Your task to perform on an android device: Search for "duracell triple a" on newegg.com, select the first entry, add it to the cart, then select checkout. Image 0: 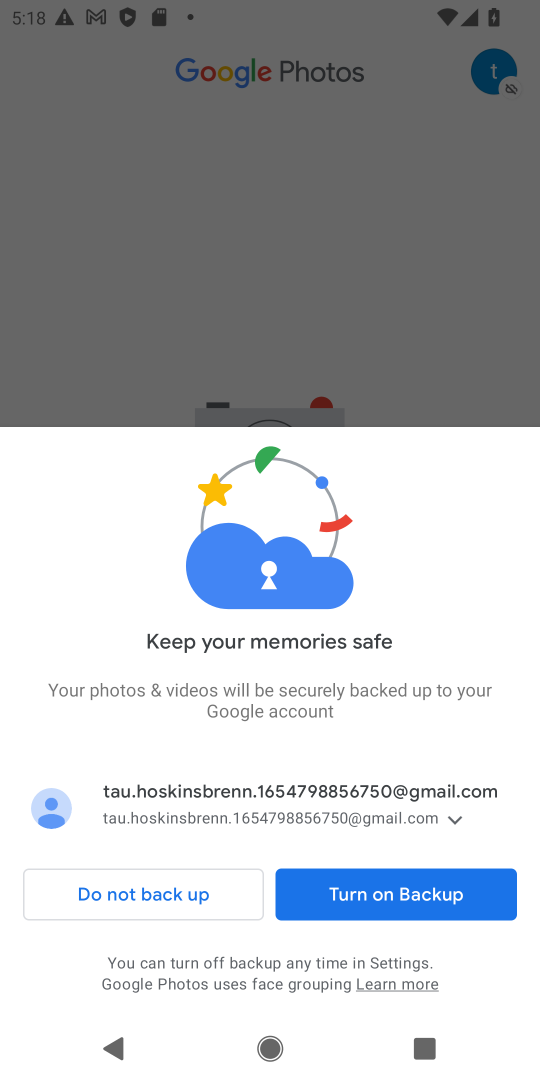
Step 0: press home button
Your task to perform on an android device: Search for "duracell triple a" on newegg.com, select the first entry, add it to the cart, then select checkout. Image 1: 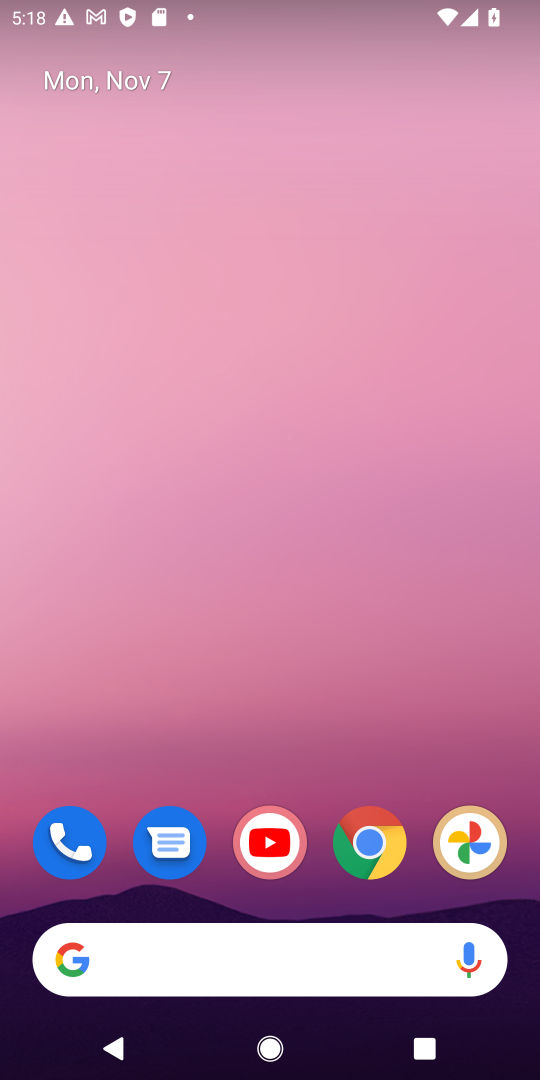
Step 1: drag from (252, 881) to (55, 75)
Your task to perform on an android device: Search for "duracell triple a" on newegg.com, select the first entry, add it to the cart, then select checkout. Image 2: 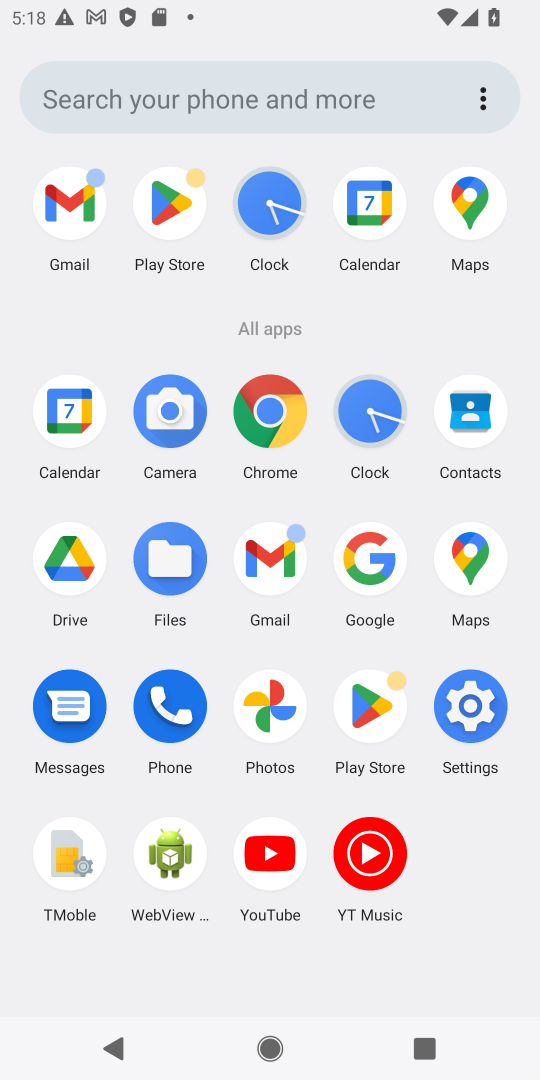
Step 2: click (292, 423)
Your task to perform on an android device: Search for "duracell triple a" on newegg.com, select the first entry, add it to the cart, then select checkout. Image 3: 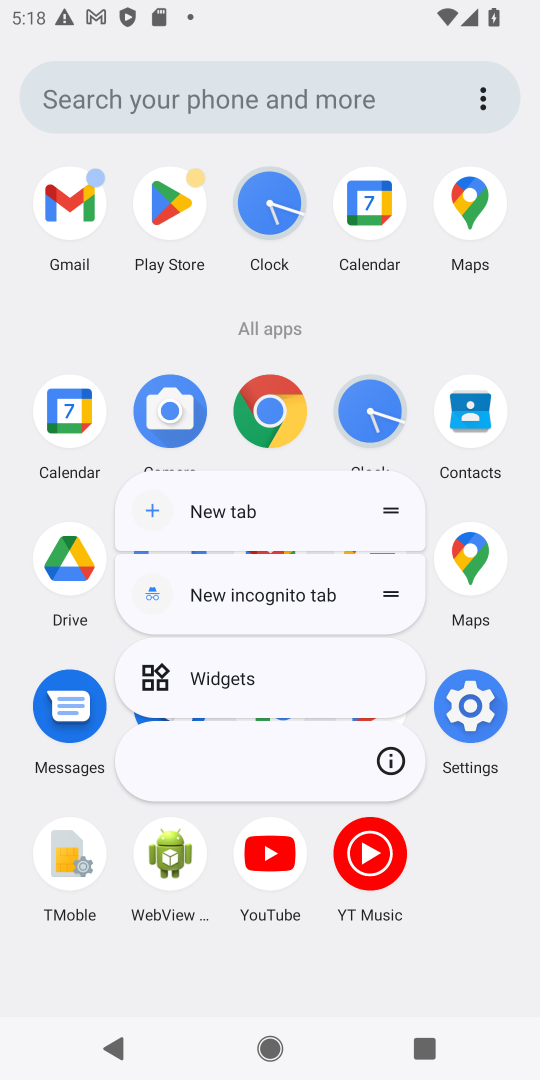
Step 3: click (282, 418)
Your task to perform on an android device: Search for "duracell triple a" on newegg.com, select the first entry, add it to the cart, then select checkout. Image 4: 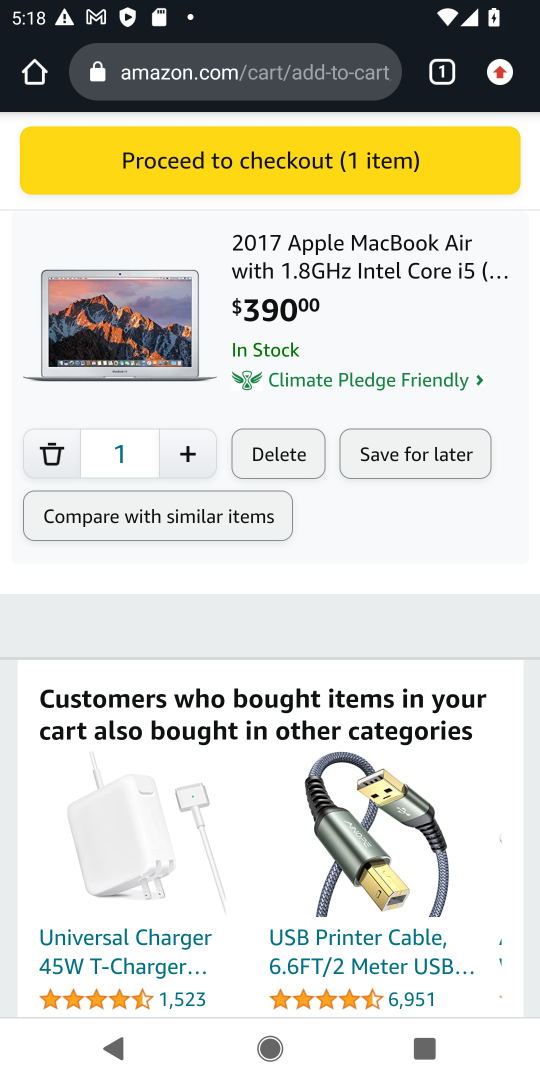
Step 4: click (168, 82)
Your task to perform on an android device: Search for "duracell triple a" on newegg.com, select the first entry, add it to the cart, then select checkout. Image 5: 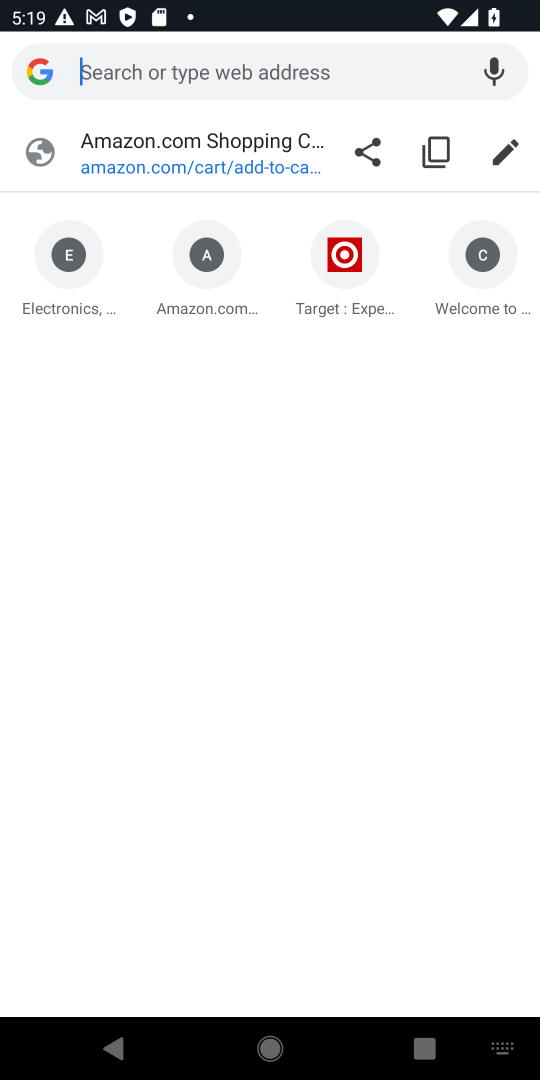
Step 5: type "newegg.com"
Your task to perform on an android device: Search for "duracell triple a" on newegg.com, select the first entry, add it to the cart, then select checkout. Image 6: 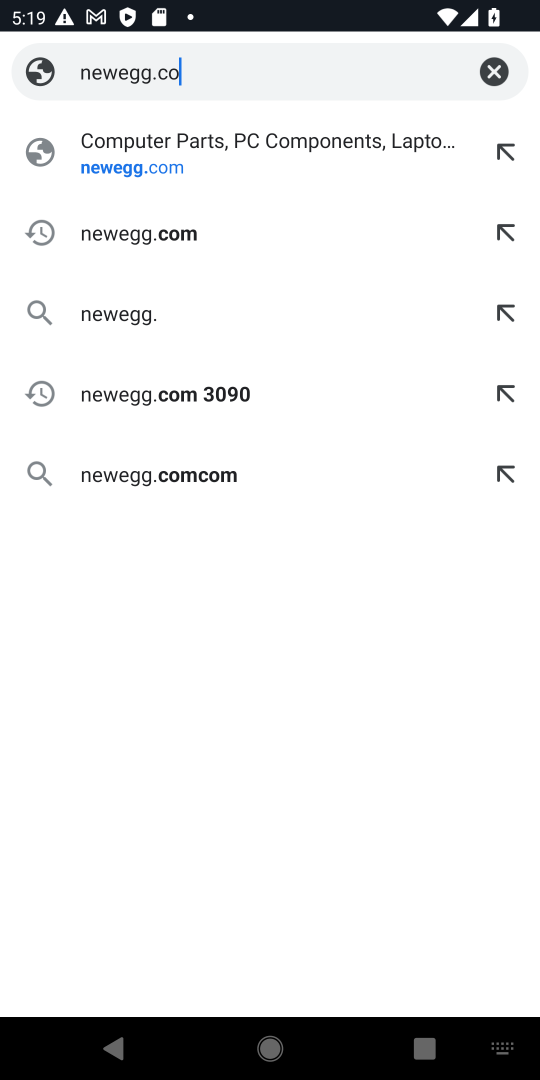
Step 6: press enter
Your task to perform on an android device: Search for "duracell triple a" on newegg.com, select the first entry, add it to the cart, then select checkout. Image 7: 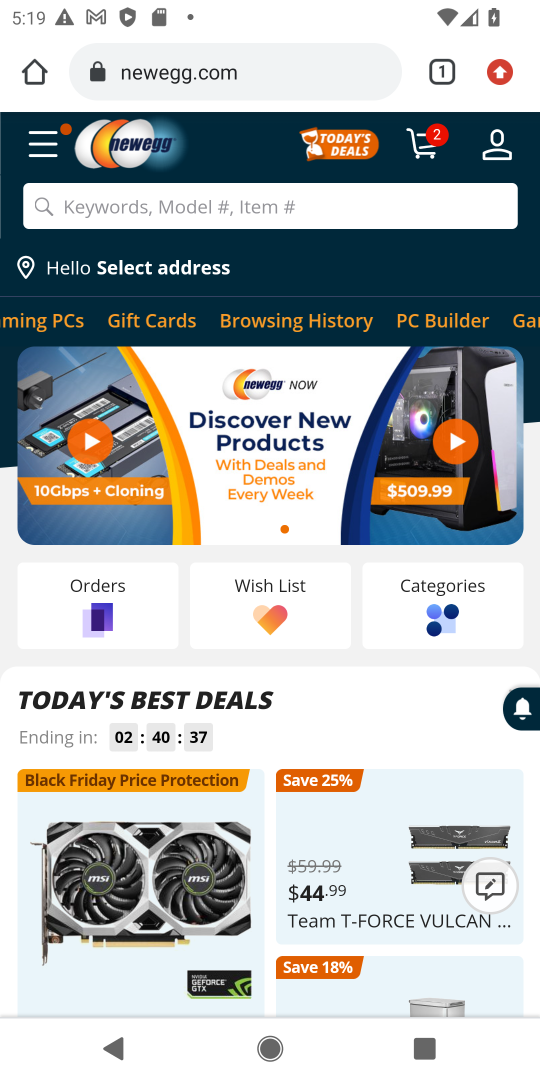
Step 7: click (135, 196)
Your task to perform on an android device: Search for "duracell triple a" on newegg.com, select the first entry, add it to the cart, then select checkout. Image 8: 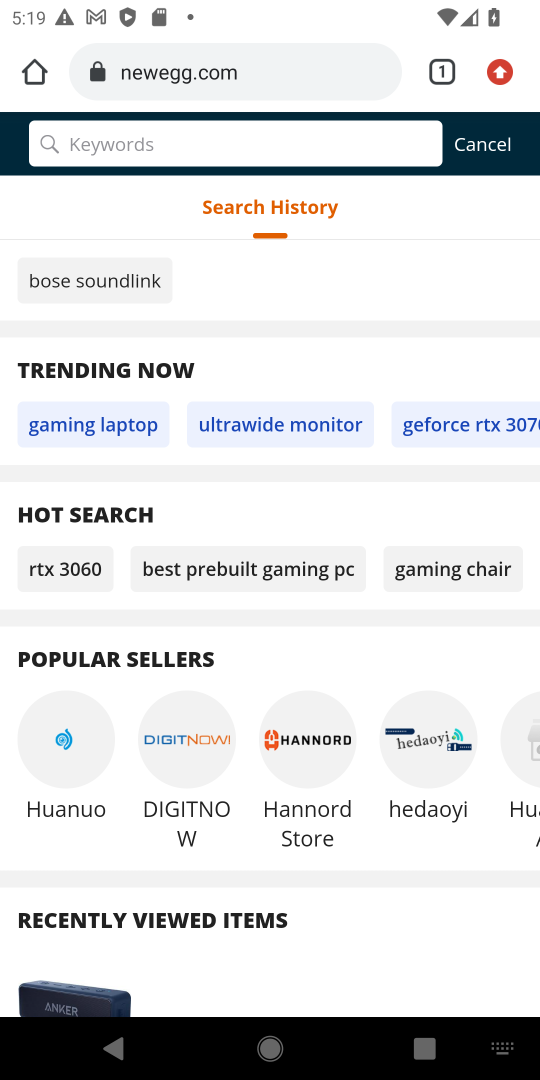
Step 8: type "duracell triple"
Your task to perform on an android device: Search for "duracell triple a" on newegg.com, select the first entry, add it to the cart, then select checkout. Image 9: 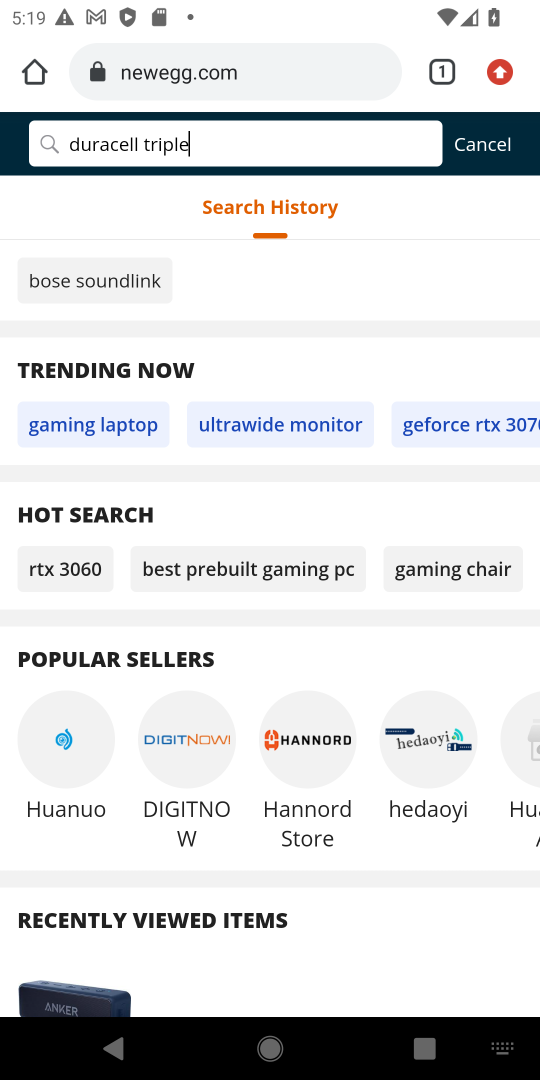
Step 9: press enter
Your task to perform on an android device: Search for "duracell triple a" on newegg.com, select the first entry, add it to the cart, then select checkout. Image 10: 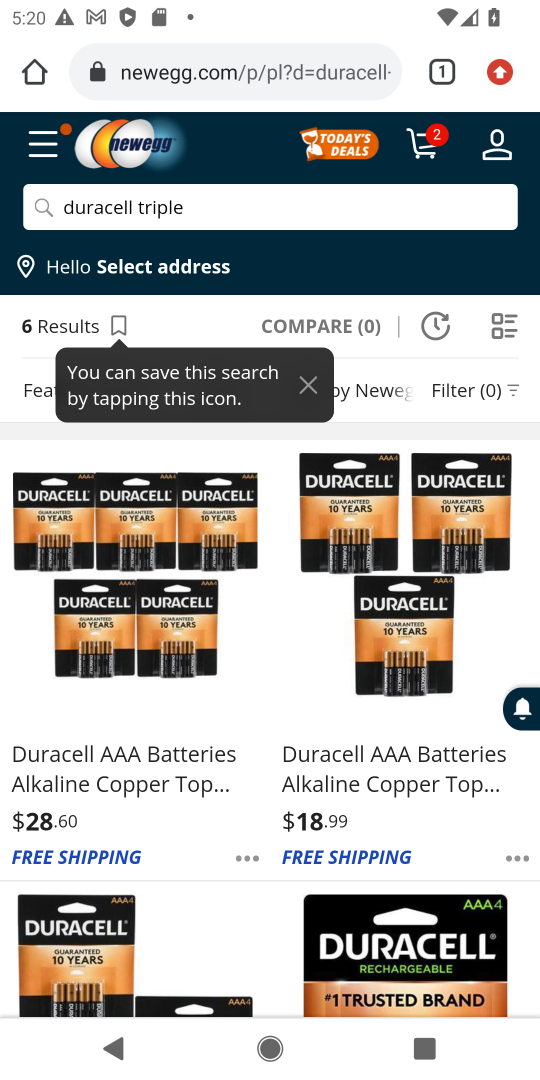
Step 10: click (83, 582)
Your task to perform on an android device: Search for "duracell triple a" on newegg.com, select the first entry, add it to the cart, then select checkout. Image 11: 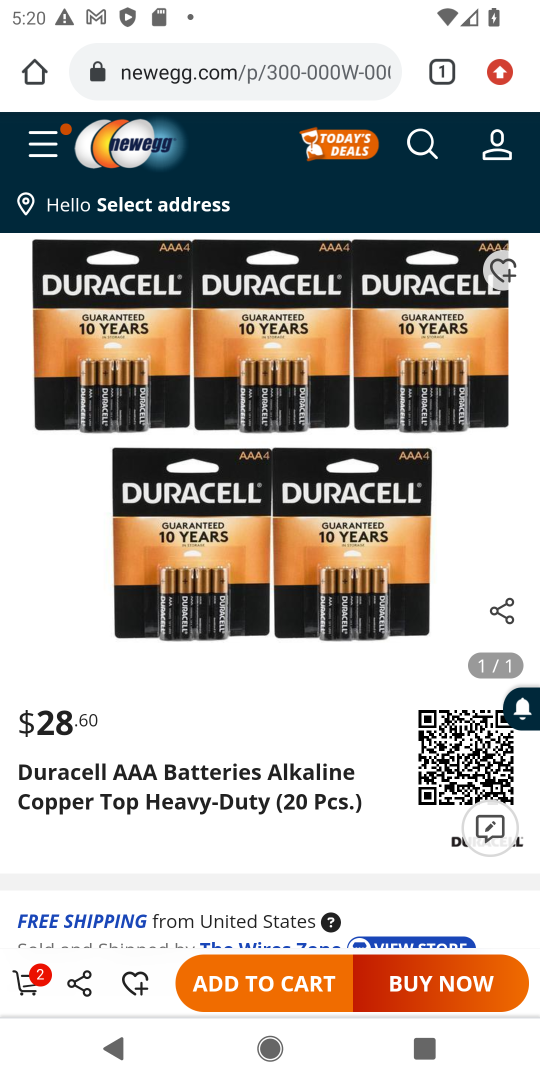
Step 11: click (274, 984)
Your task to perform on an android device: Search for "duracell triple a" on newegg.com, select the first entry, add it to the cart, then select checkout. Image 12: 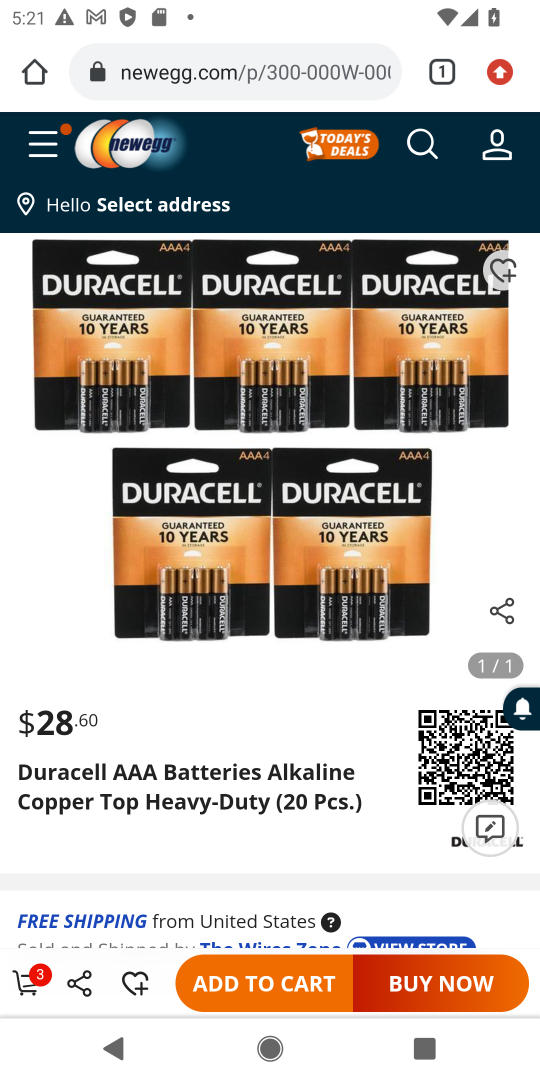
Step 12: click (274, 981)
Your task to perform on an android device: Search for "duracell triple a" on newegg.com, select the first entry, add it to the cart, then select checkout. Image 13: 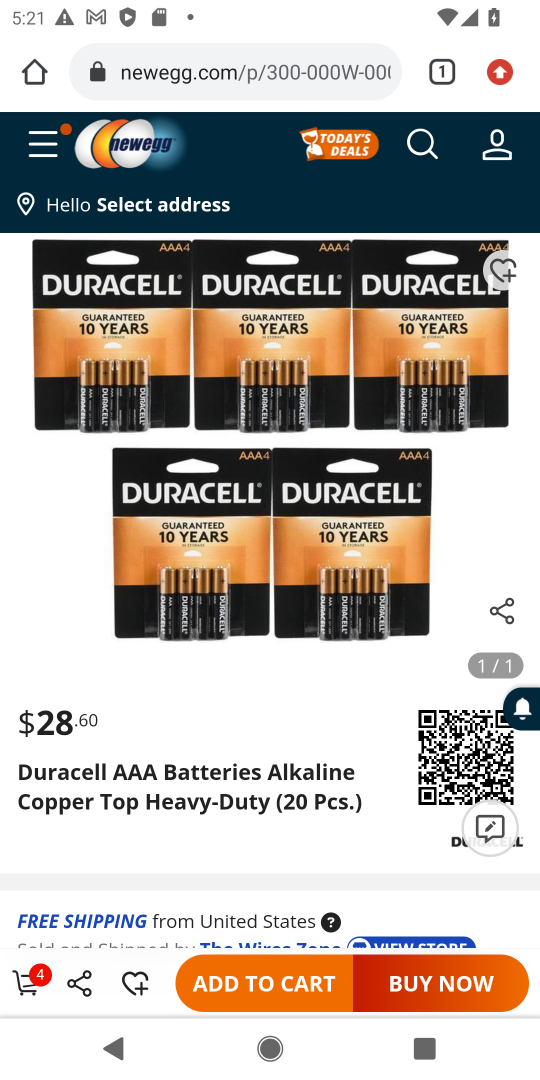
Step 13: drag from (342, 857) to (259, 335)
Your task to perform on an android device: Search for "duracell triple a" on newegg.com, select the first entry, add it to the cart, then select checkout. Image 14: 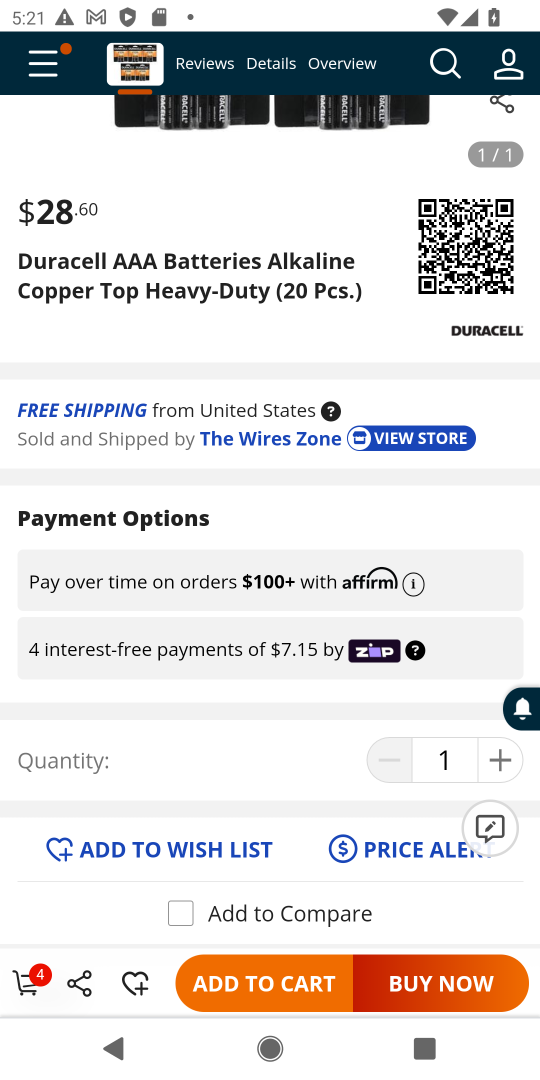
Step 14: drag from (315, 877) to (228, 487)
Your task to perform on an android device: Search for "duracell triple a" on newegg.com, select the first entry, add it to the cart, then select checkout. Image 15: 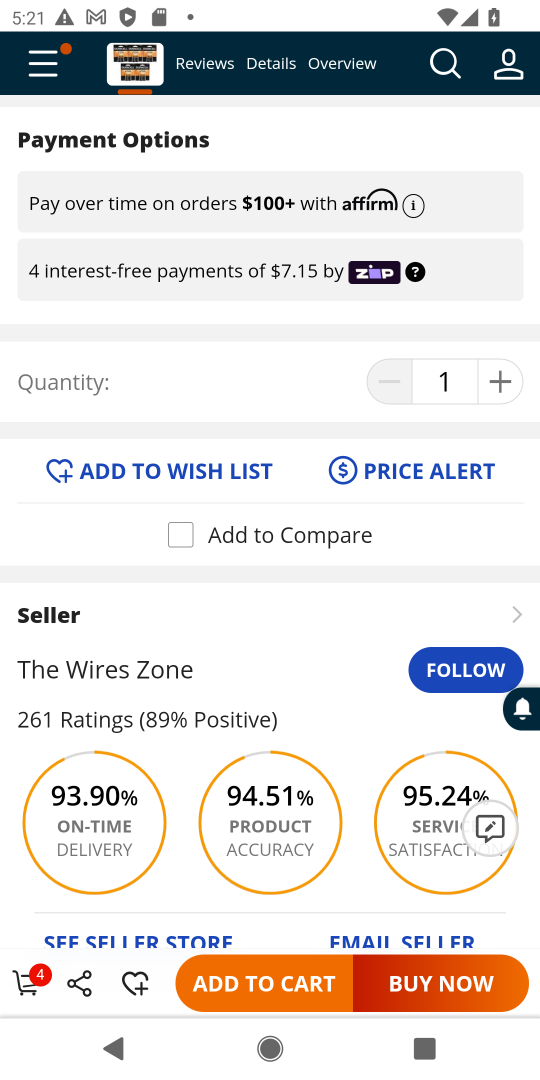
Step 15: drag from (357, 850) to (299, 323)
Your task to perform on an android device: Search for "duracell triple a" on newegg.com, select the first entry, add it to the cart, then select checkout. Image 16: 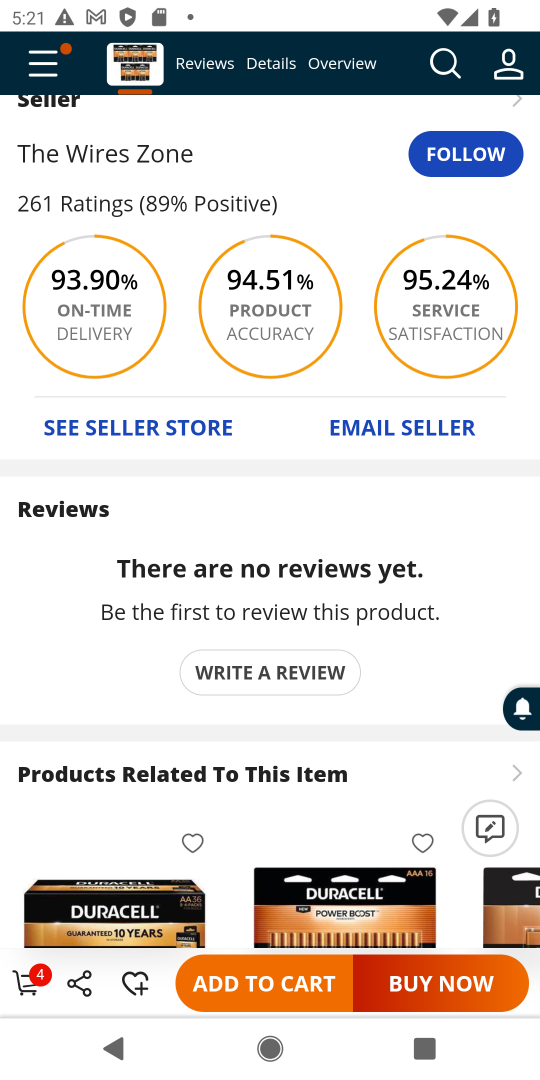
Step 16: drag from (338, 681) to (340, 277)
Your task to perform on an android device: Search for "duracell triple a" on newegg.com, select the first entry, add it to the cart, then select checkout. Image 17: 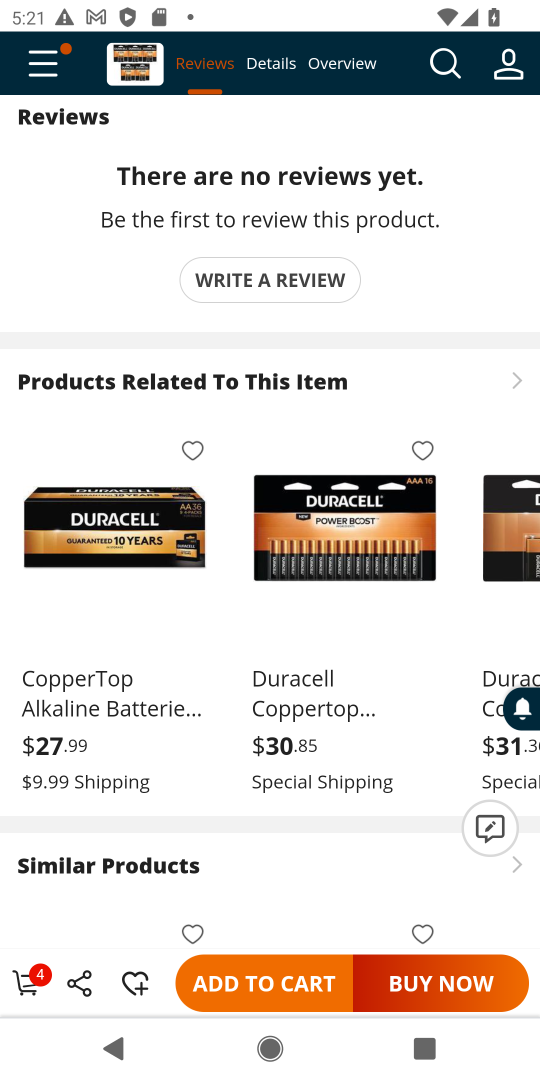
Step 17: drag from (395, 785) to (362, 311)
Your task to perform on an android device: Search for "duracell triple a" on newegg.com, select the first entry, add it to the cart, then select checkout. Image 18: 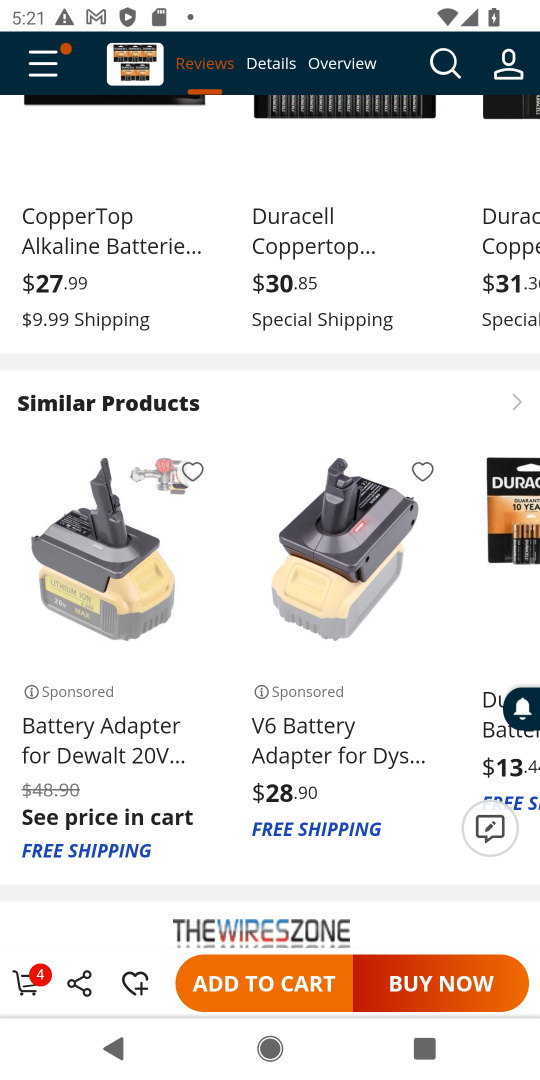
Step 18: drag from (373, 839) to (347, 335)
Your task to perform on an android device: Search for "duracell triple a" on newegg.com, select the first entry, add it to the cart, then select checkout. Image 19: 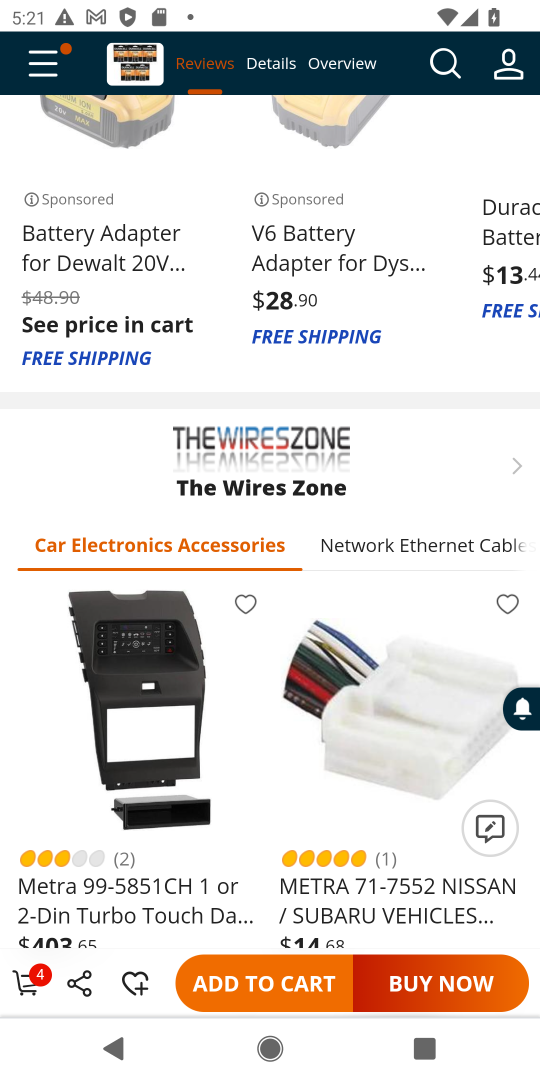
Step 19: drag from (415, 838) to (441, 334)
Your task to perform on an android device: Search for "duracell triple a" on newegg.com, select the first entry, add it to the cart, then select checkout. Image 20: 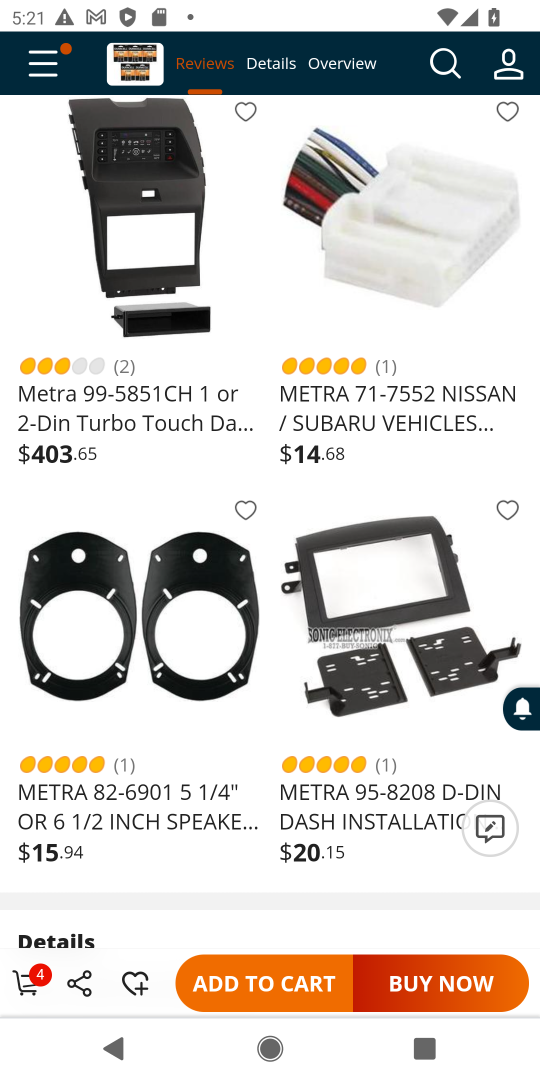
Step 20: drag from (354, 544) to (392, 894)
Your task to perform on an android device: Search for "duracell triple a" on newegg.com, select the first entry, add it to the cart, then select checkout. Image 21: 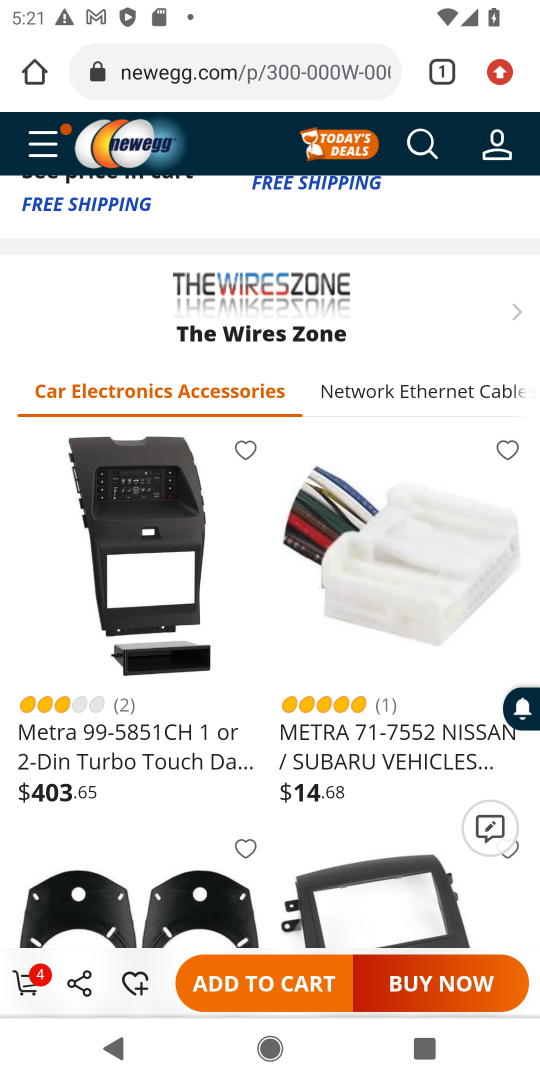
Step 21: drag from (322, 526) to (367, 887)
Your task to perform on an android device: Search for "duracell triple a" on newegg.com, select the first entry, add it to the cart, then select checkout. Image 22: 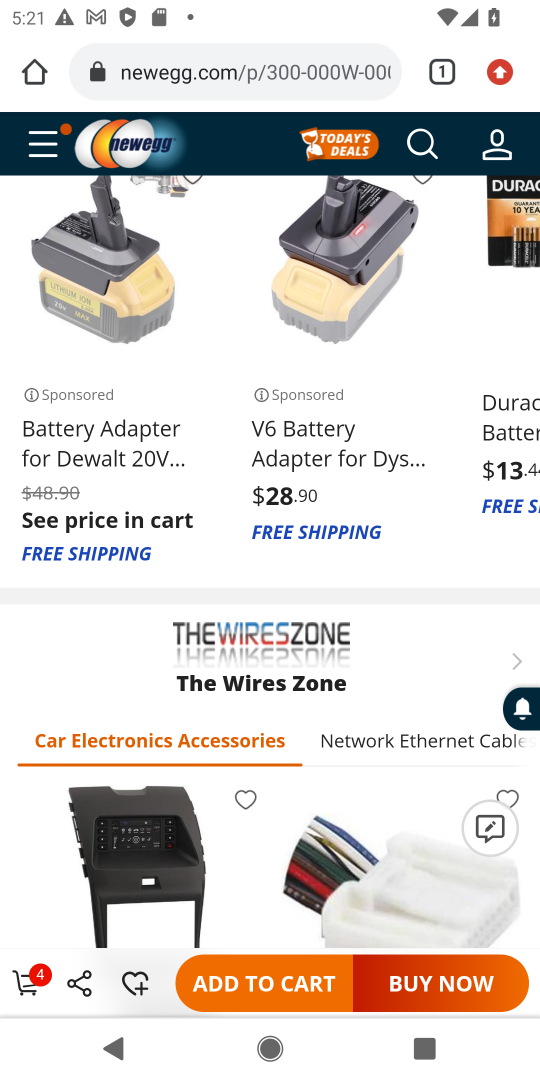
Step 22: drag from (340, 388) to (432, 958)
Your task to perform on an android device: Search for "duracell triple a" on newegg.com, select the first entry, add it to the cart, then select checkout. Image 23: 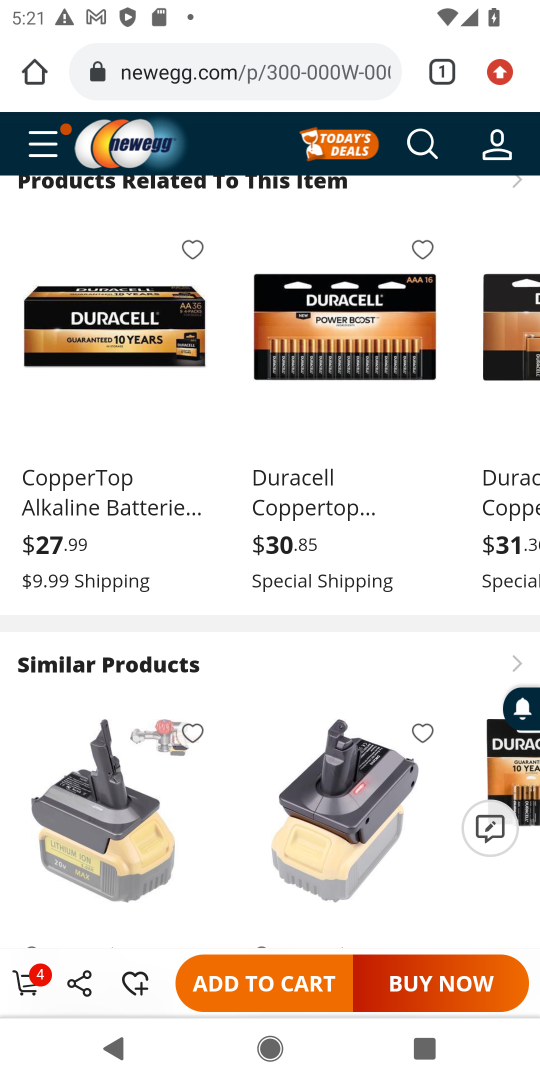
Step 23: drag from (289, 375) to (371, 938)
Your task to perform on an android device: Search for "duracell triple a" on newegg.com, select the first entry, add it to the cart, then select checkout. Image 24: 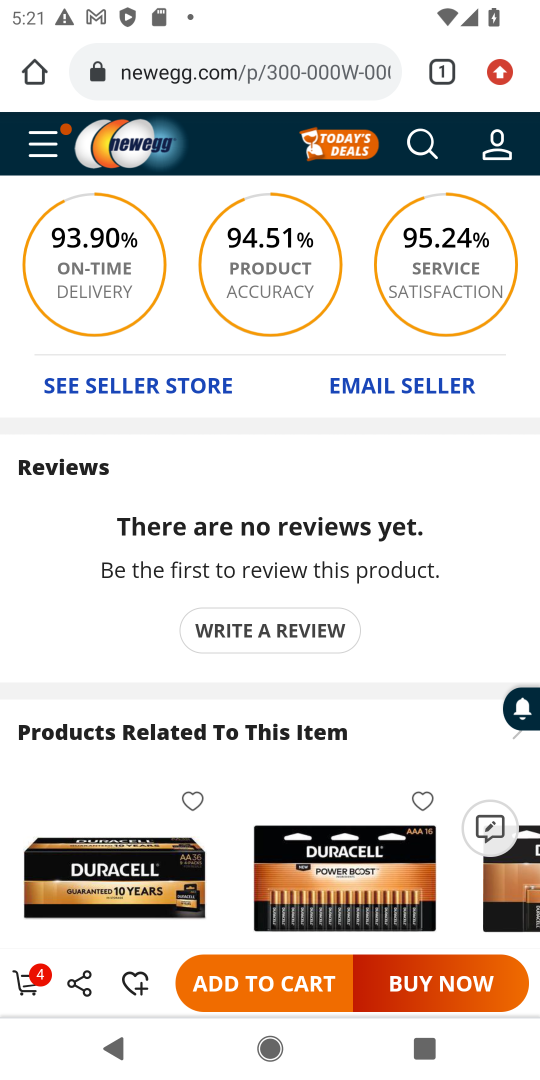
Step 24: drag from (243, 420) to (312, 872)
Your task to perform on an android device: Search for "duracell triple a" on newegg.com, select the first entry, add it to the cart, then select checkout. Image 25: 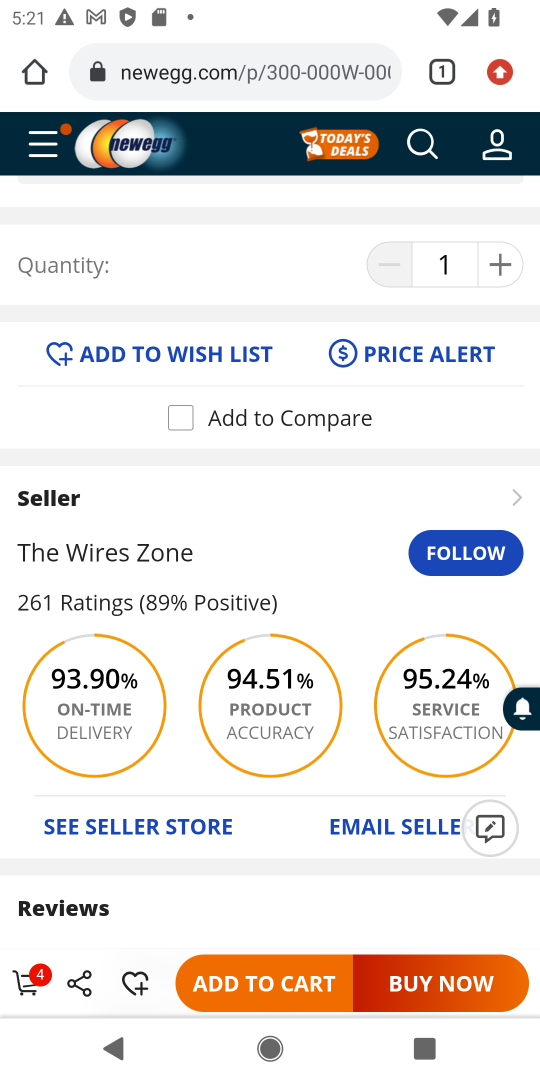
Step 25: drag from (180, 278) to (265, 595)
Your task to perform on an android device: Search for "duracell triple a" on newegg.com, select the first entry, add it to the cart, then select checkout. Image 26: 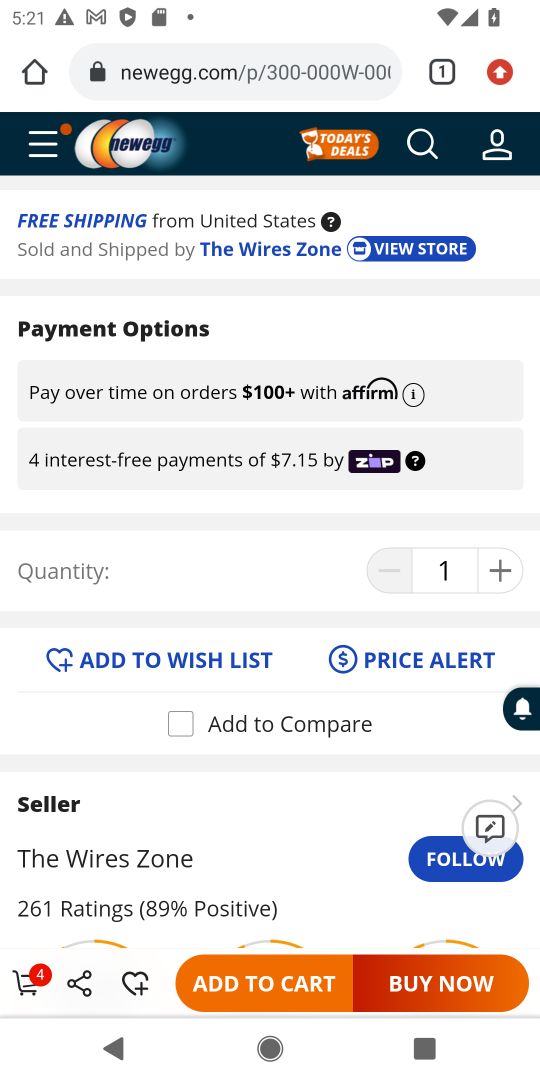
Step 26: drag from (224, 405) to (283, 612)
Your task to perform on an android device: Search for "duracell triple a" on newegg.com, select the first entry, add it to the cart, then select checkout. Image 27: 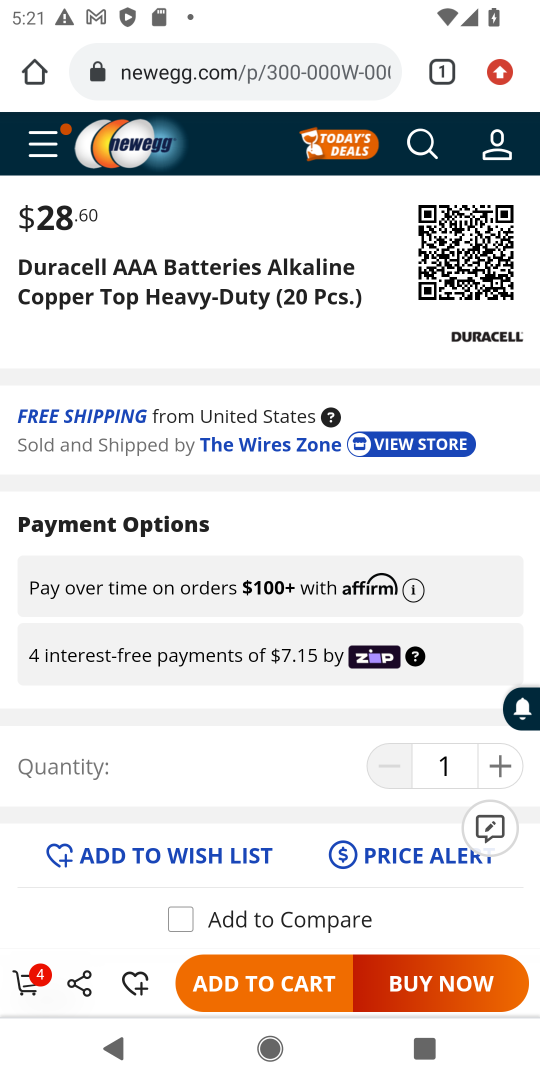
Step 27: click (32, 146)
Your task to perform on an android device: Search for "duracell triple a" on newegg.com, select the first entry, add it to the cart, then select checkout. Image 28: 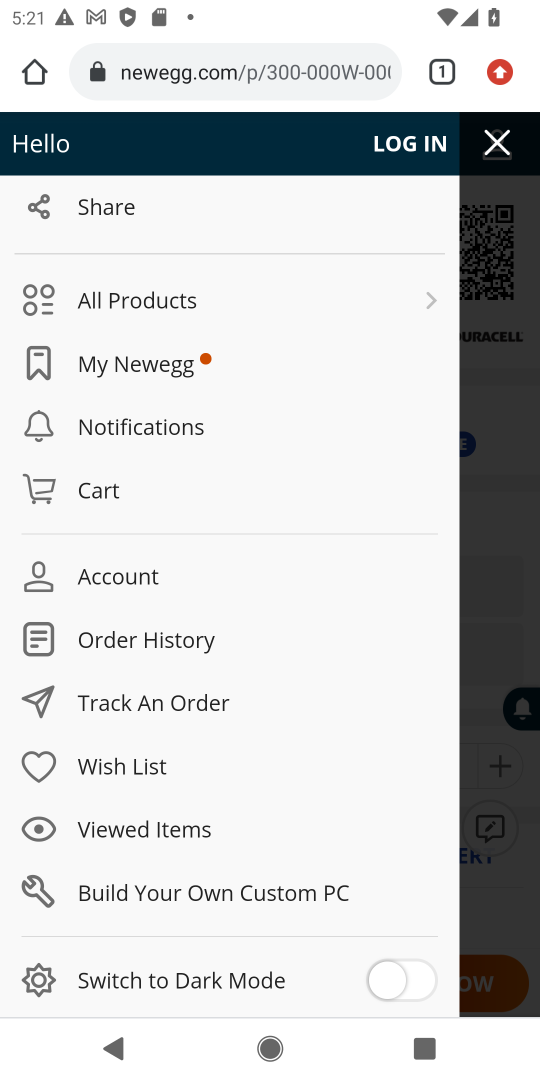
Step 28: click (114, 490)
Your task to perform on an android device: Search for "duracell triple a" on newegg.com, select the first entry, add it to the cart, then select checkout. Image 29: 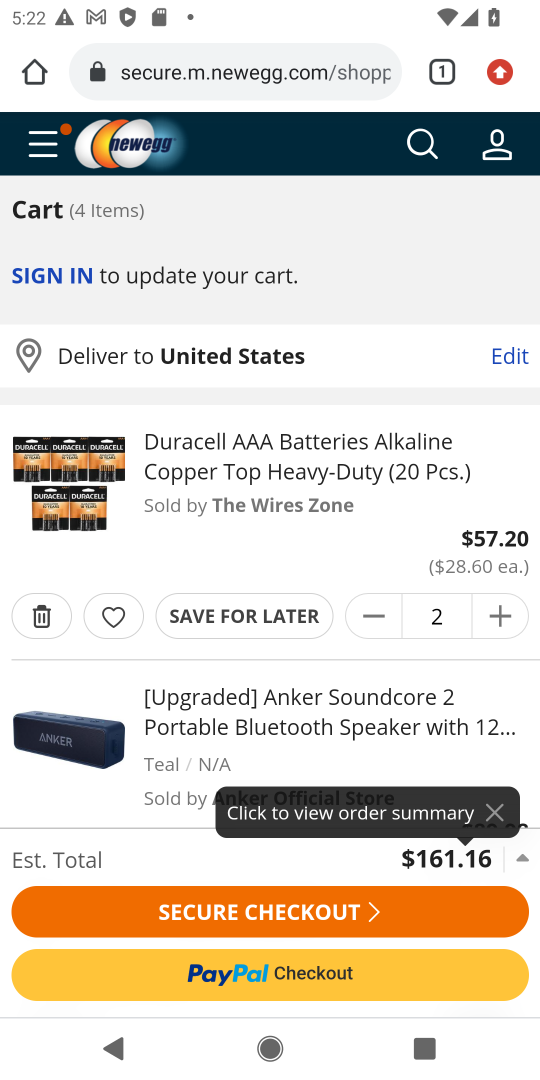
Step 29: click (317, 909)
Your task to perform on an android device: Search for "duracell triple a" on newegg.com, select the first entry, add it to the cart, then select checkout. Image 30: 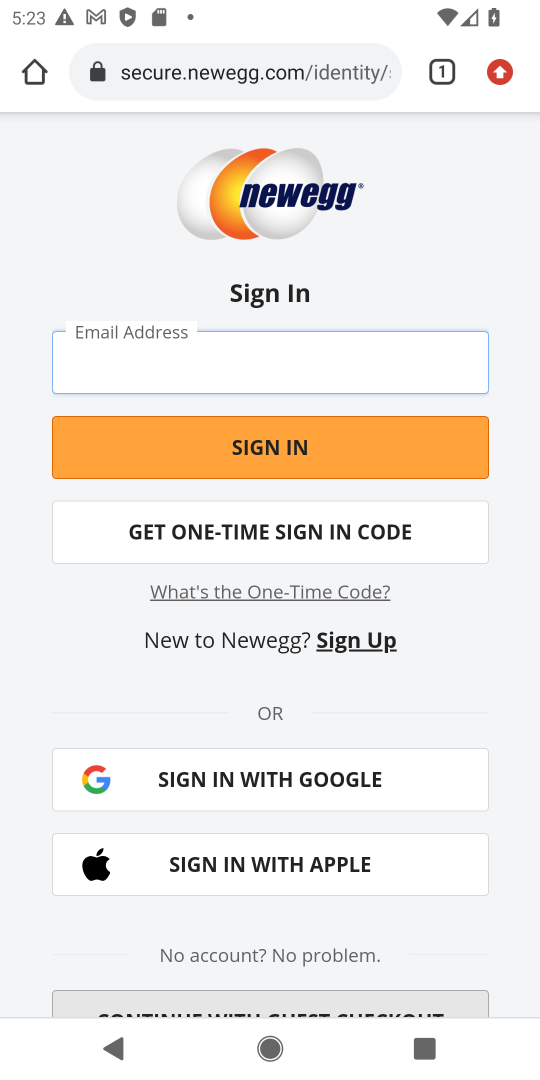
Step 30: task complete